Your task to perform on an android device: Play the last video I watched on Youtube Image 0: 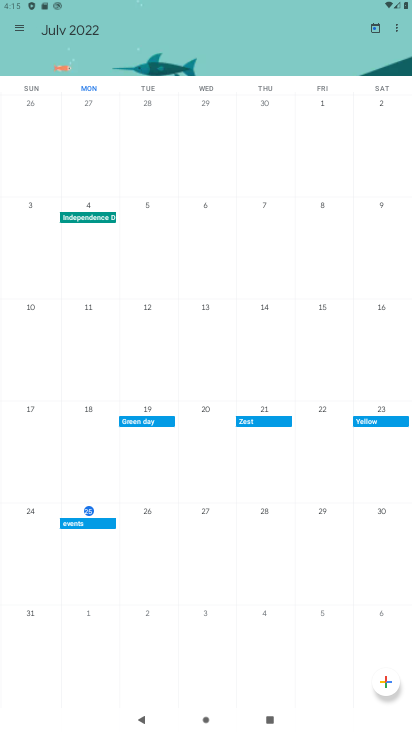
Step 0: click (19, 29)
Your task to perform on an android device: Play the last video I watched on Youtube Image 1: 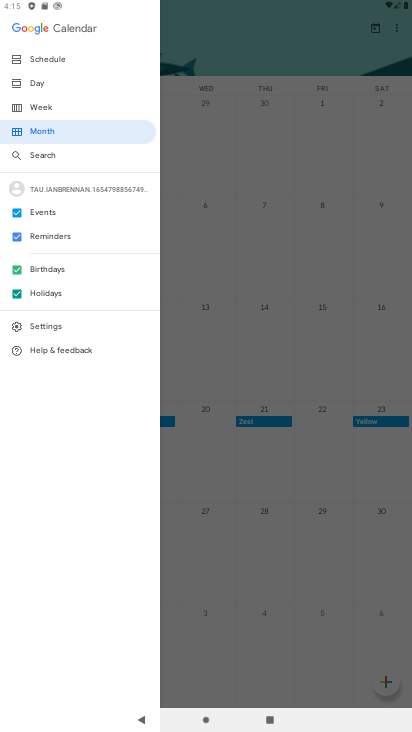
Step 1: press home button
Your task to perform on an android device: Play the last video I watched on Youtube Image 2: 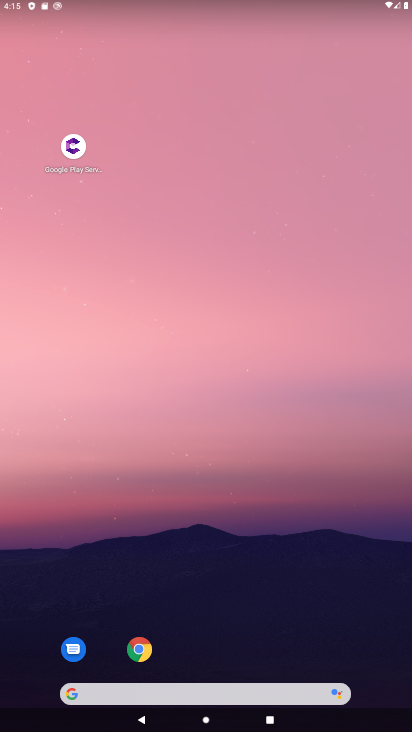
Step 2: drag from (325, 653) to (272, 147)
Your task to perform on an android device: Play the last video I watched on Youtube Image 3: 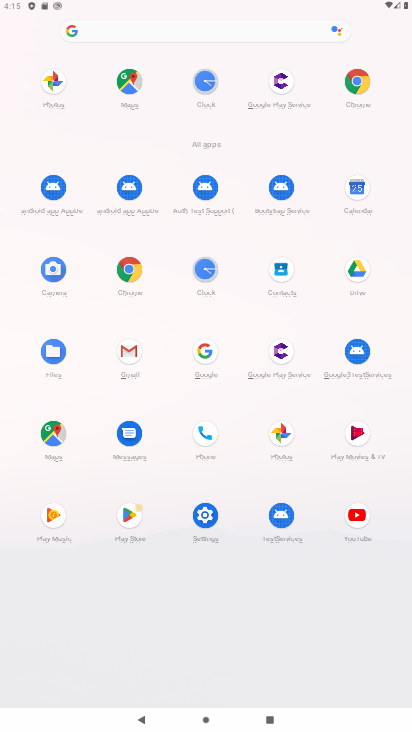
Step 3: click (363, 521)
Your task to perform on an android device: Play the last video I watched on Youtube Image 4: 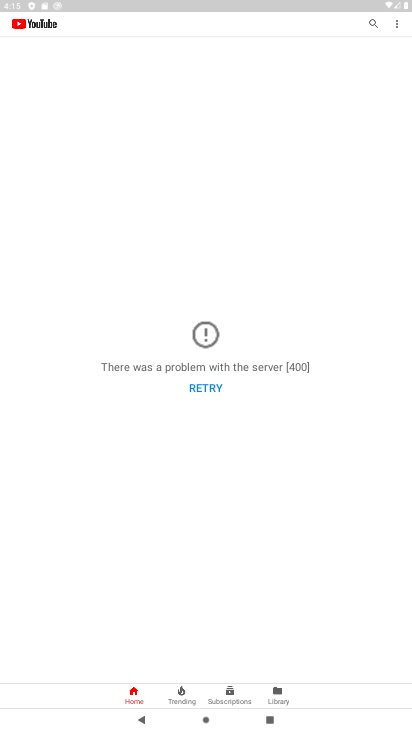
Step 4: click (287, 701)
Your task to perform on an android device: Play the last video I watched on Youtube Image 5: 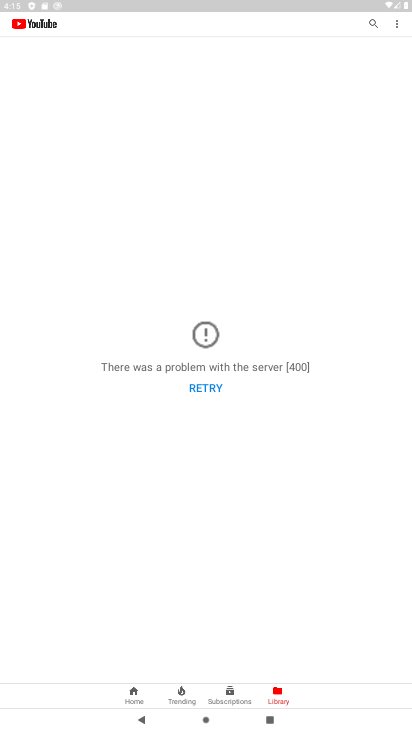
Step 5: task complete